Your task to perform on an android device: turn on wifi Image 0: 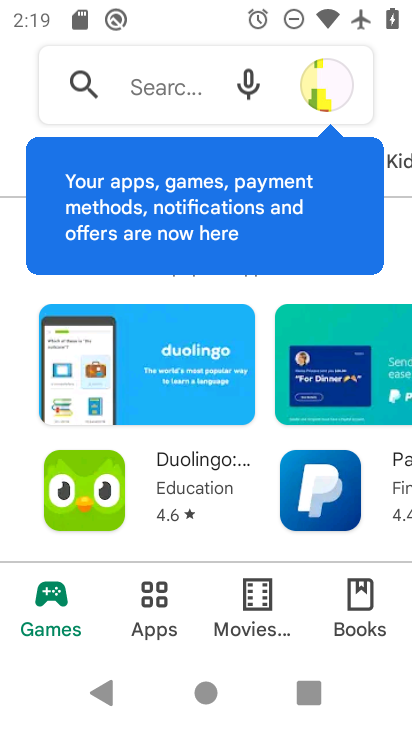
Step 0: press home button
Your task to perform on an android device: turn on wifi Image 1: 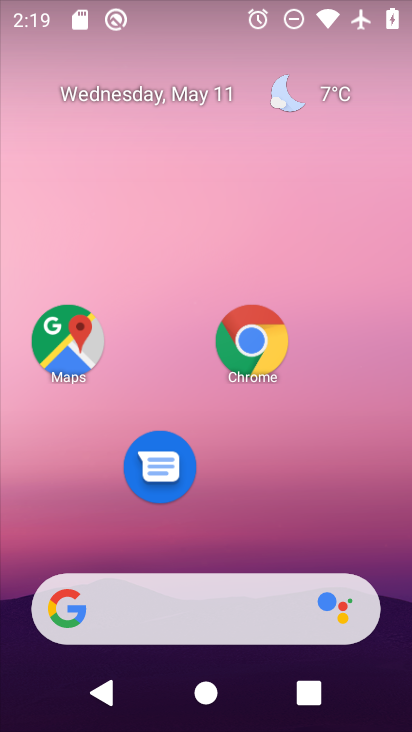
Step 1: drag from (184, 632) to (297, 127)
Your task to perform on an android device: turn on wifi Image 2: 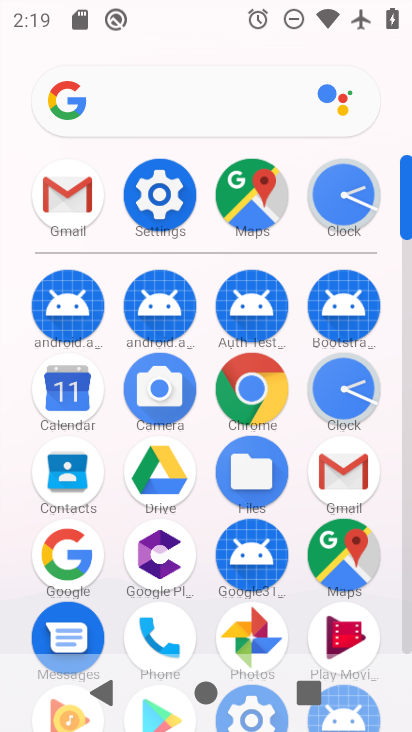
Step 2: click (155, 191)
Your task to perform on an android device: turn on wifi Image 3: 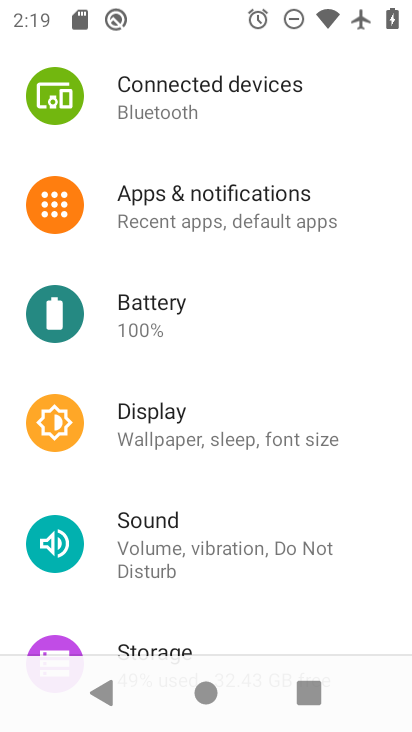
Step 3: drag from (229, 133) to (225, 501)
Your task to perform on an android device: turn on wifi Image 4: 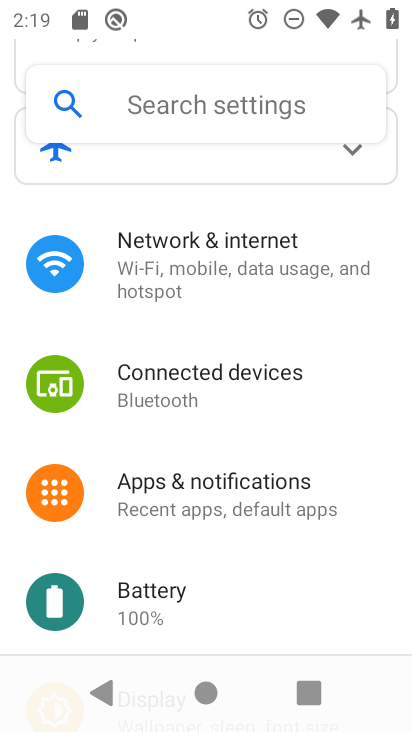
Step 4: click (248, 262)
Your task to perform on an android device: turn on wifi Image 5: 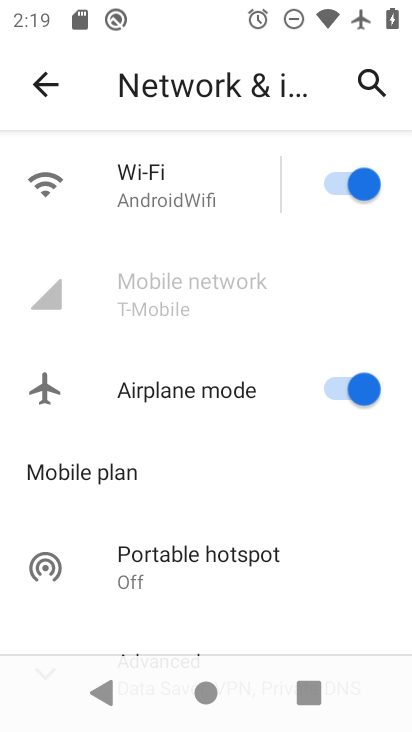
Step 5: task complete